Your task to perform on an android device: open a bookmark in the chrome app Image 0: 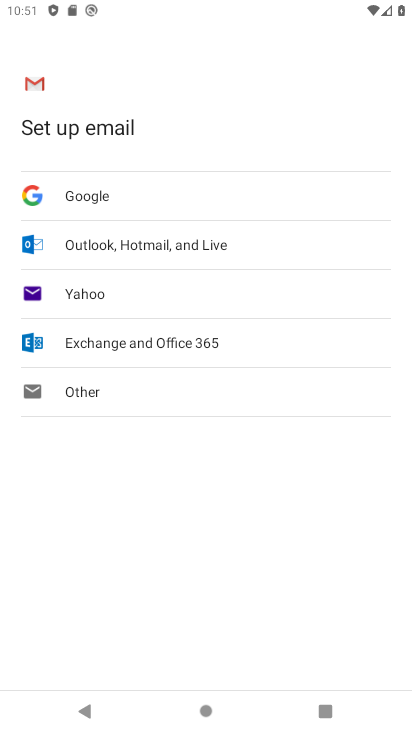
Step 0: press home button
Your task to perform on an android device: open a bookmark in the chrome app Image 1: 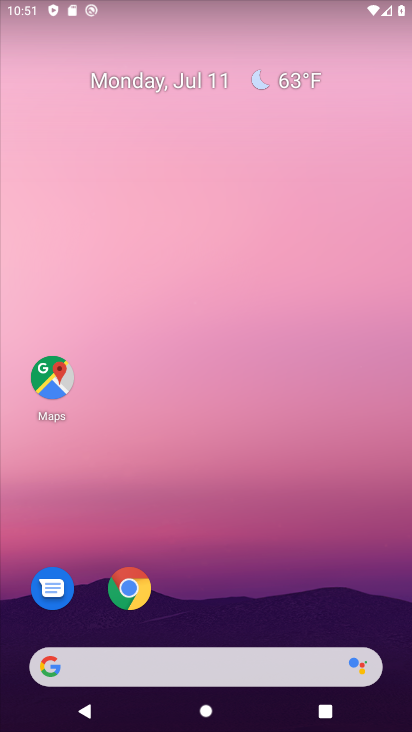
Step 1: click (248, 730)
Your task to perform on an android device: open a bookmark in the chrome app Image 2: 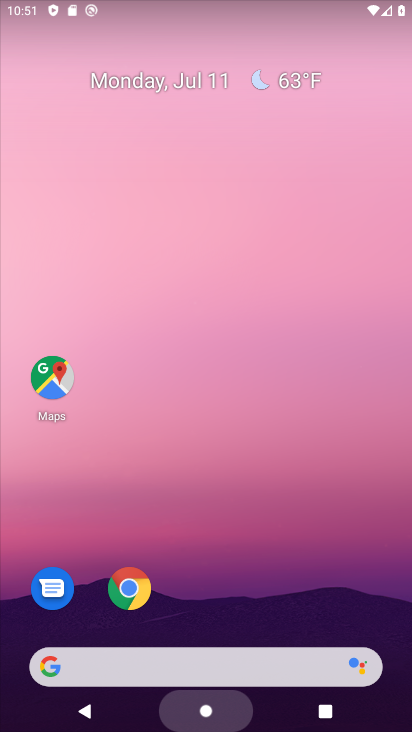
Step 2: drag from (219, 203) to (211, 150)
Your task to perform on an android device: open a bookmark in the chrome app Image 3: 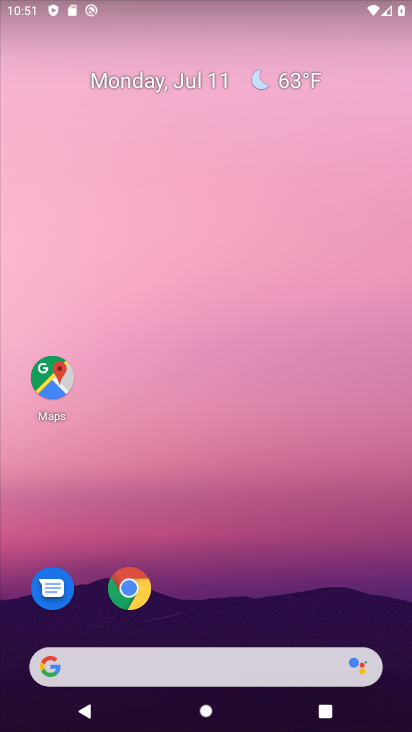
Step 3: click (123, 589)
Your task to perform on an android device: open a bookmark in the chrome app Image 4: 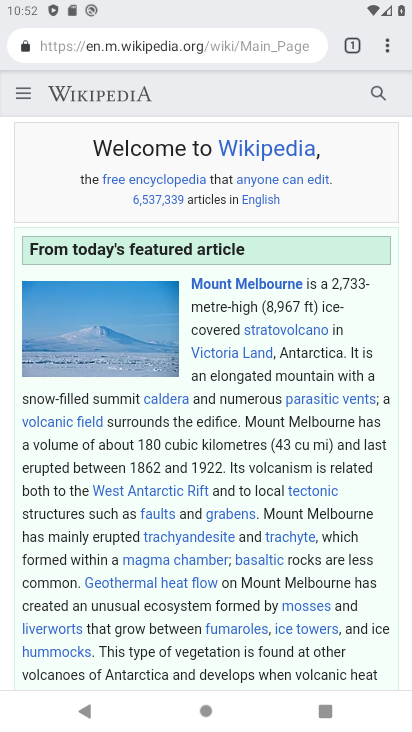
Step 4: click (385, 50)
Your task to perform on an android device: open a bookmark in the chrome app Image 5: 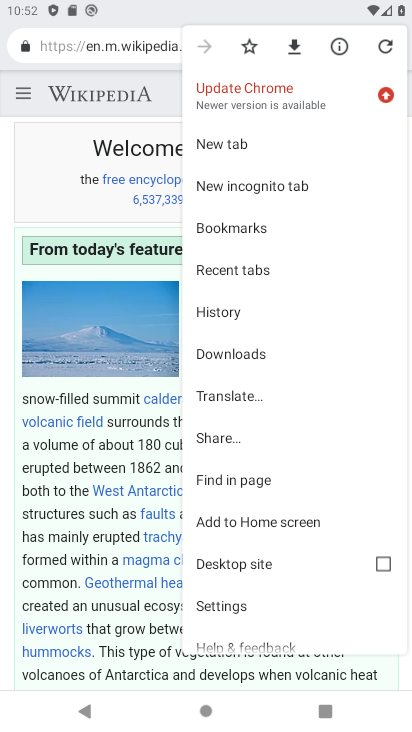
Step 5: click (233, 231)
Your task to perform on an android device: open a bookmark in the chrome app Image 6: 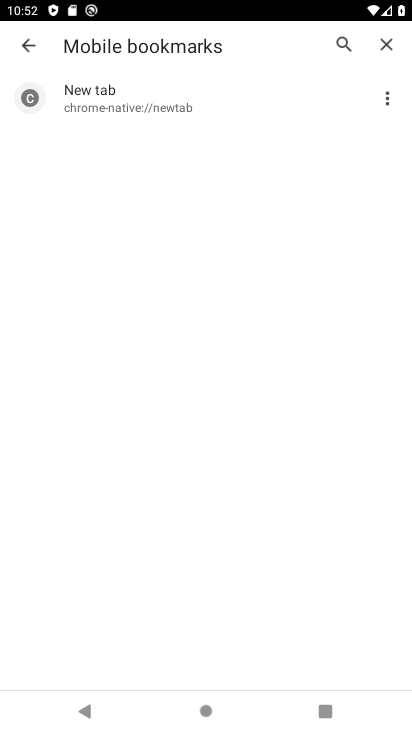
Step 6: click (125, 99)
Your task to perform on an android device: open a bookmark in the chrome app Image 7: 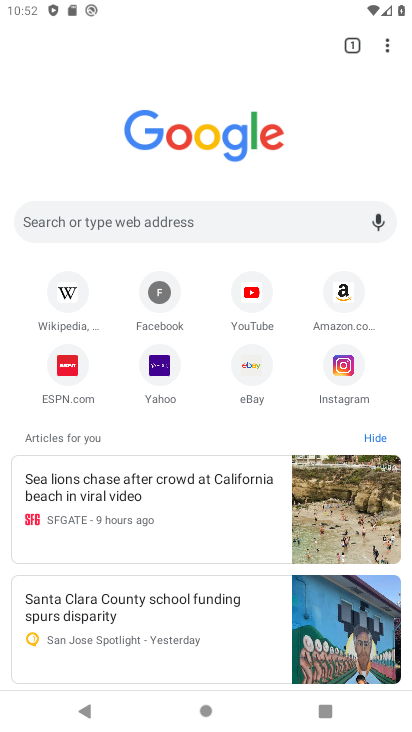
Step 7: task complete